Your task to perform on an android device: toggle translation in the chrome app Image 0: 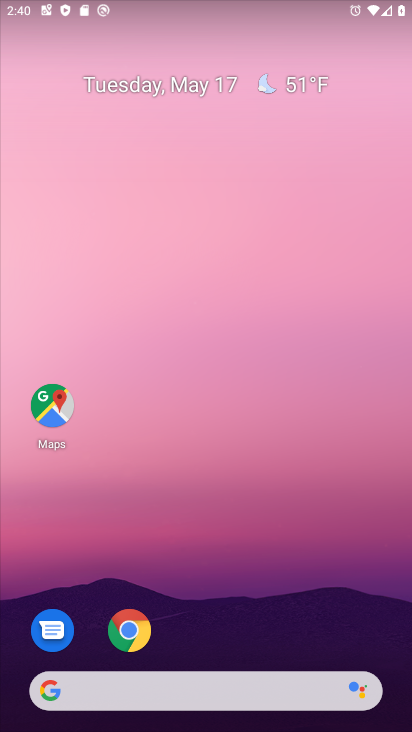
Step 0: click (128, 632)
Your task to perform on an android device: toggle translation in the chrome app Image 1: 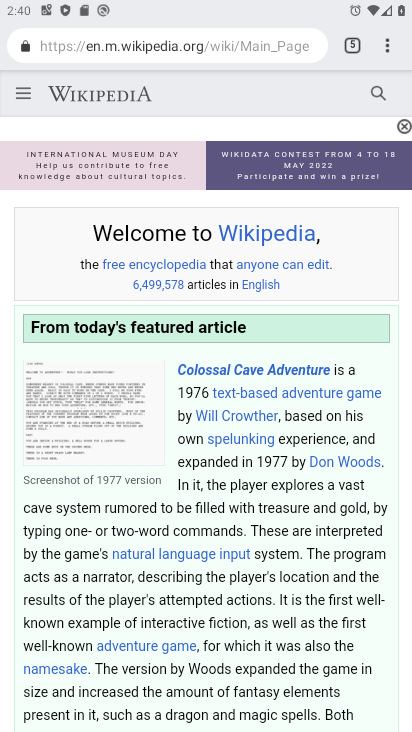
Step 1: drag from (392, 45) to (229, 549)
Your task to perform on an android device: toggle translation in the chrome app Image 2: 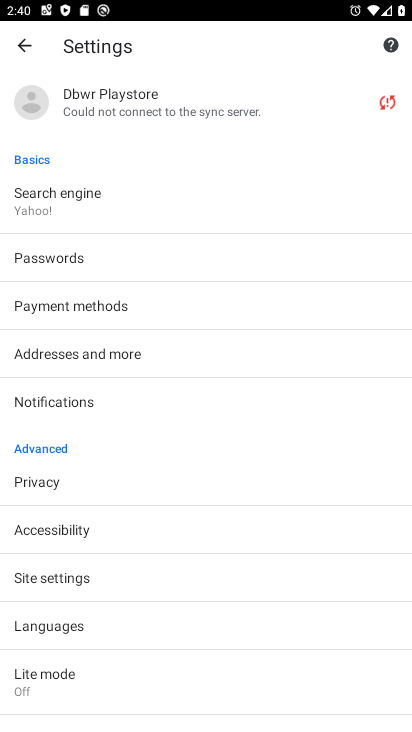
Step 2: click (62, 627)
Your task to perform on an android device: toggle translation in the chrome app Image 3: 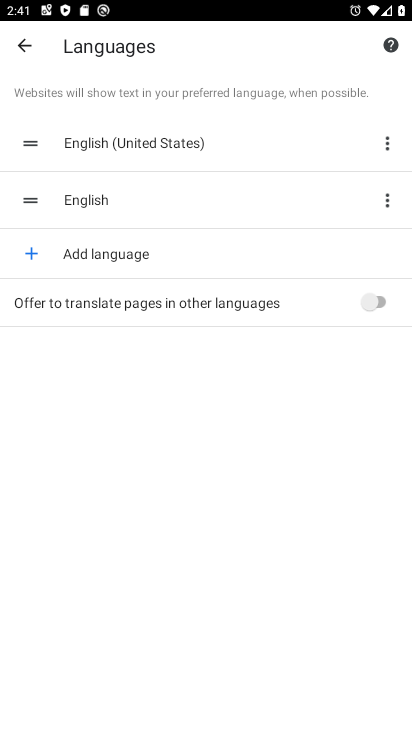
Step 3: click (371, 287)
Your task to perform on an android device: toggle translation in the chrome app Image 4: 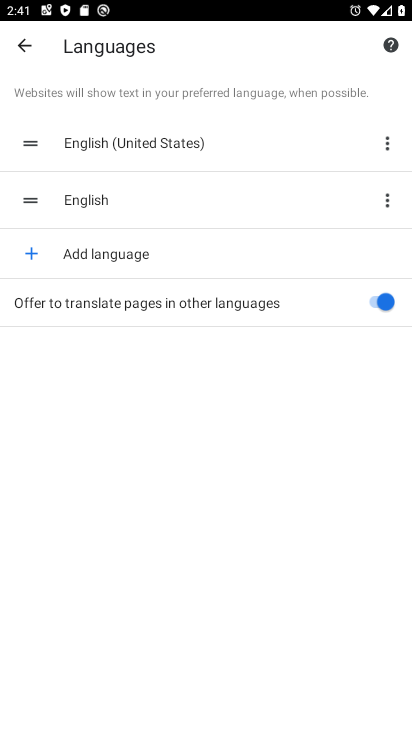
Step 4: task complete